Your task to perform on an android device: check battery use Image 0: 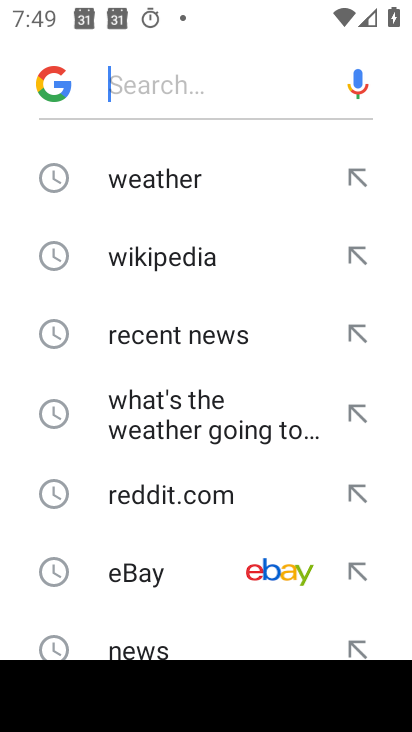
Step 0: press home button
Your task to perform on an android device: check battery use Image 1: 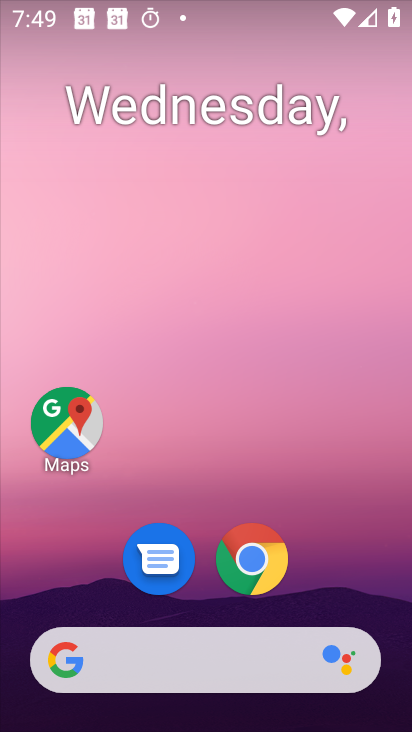
Step 1: drag from (345, 594) to (332, 0)
Your task to perform on an android device: check battery use Image 2: 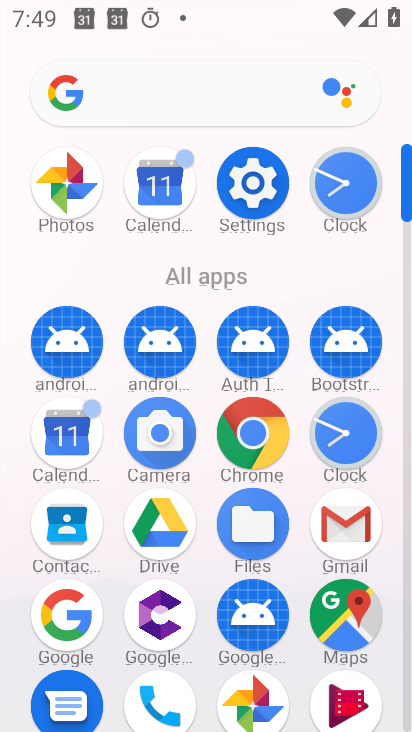
Step 2: click (253, 201)
Your task to perform on an android device: check battery use Image 3: 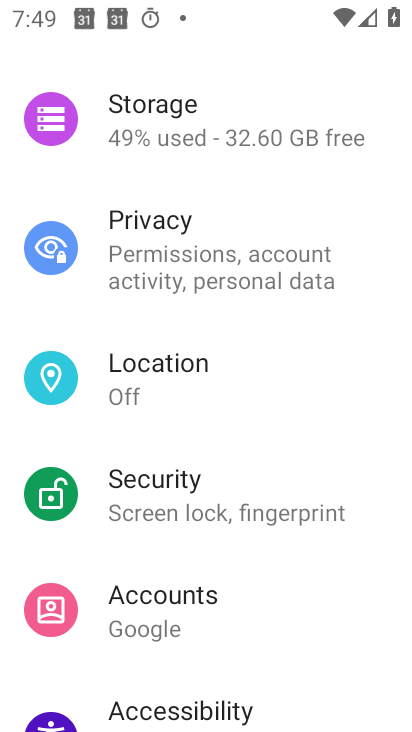
Step 3: drag from (314, 248) to (337, 541)
Your task to perform on an android device: check battery use Image 4: 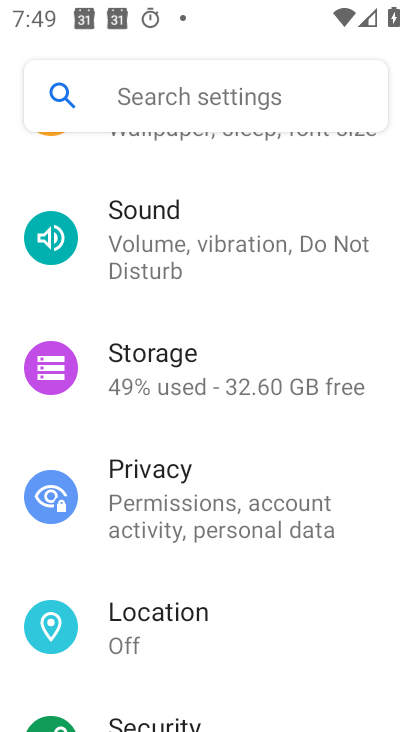
Step 4: drag from (281, 335) to (322, 639)
Your task to perform on an android device: check battery use Image 5: 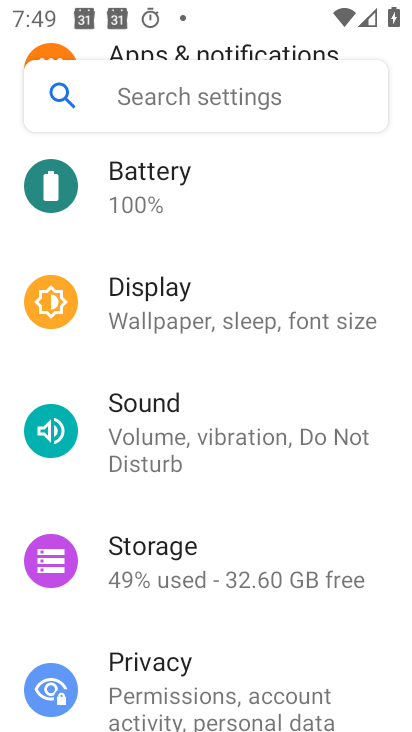
Step 5: click (153, 207)
Your task to perform on an android device: check battery use Image 6: 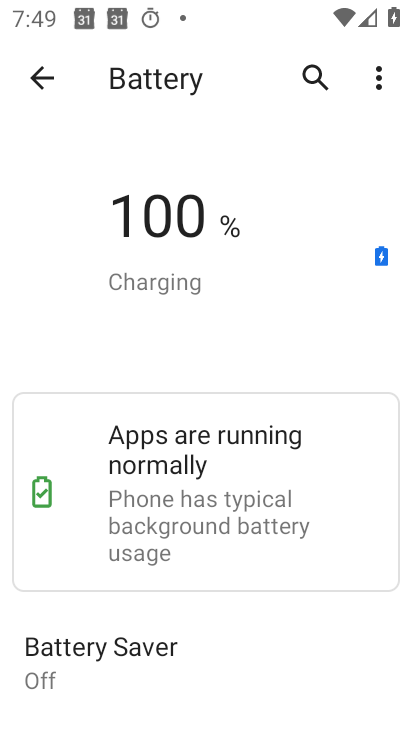
Step 6: click (387, 74)
Your task to perform on an android device: check battery use Image 7: 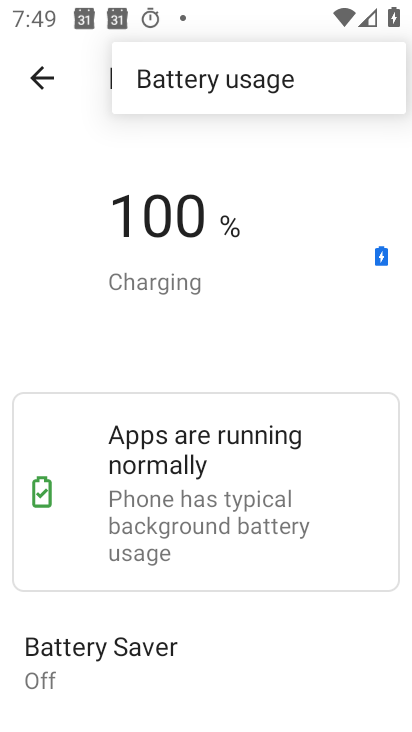
Step 7: click (287, 90)
Your task to perform on an android device: check battery use Image 8: 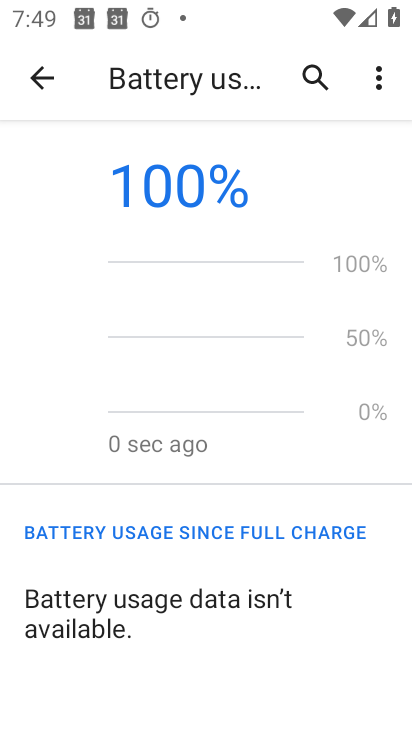
Step 8: task complete